Your task to perform on an android device: set the timer Image 0: 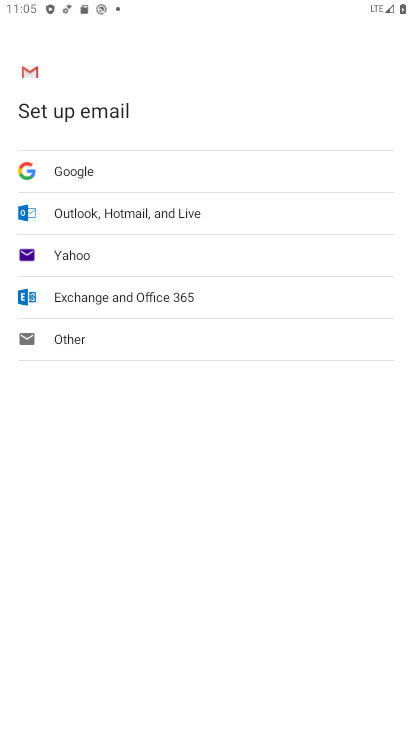
Step 0: press back button
Your task to perform on an android device: set the timer Image 1: 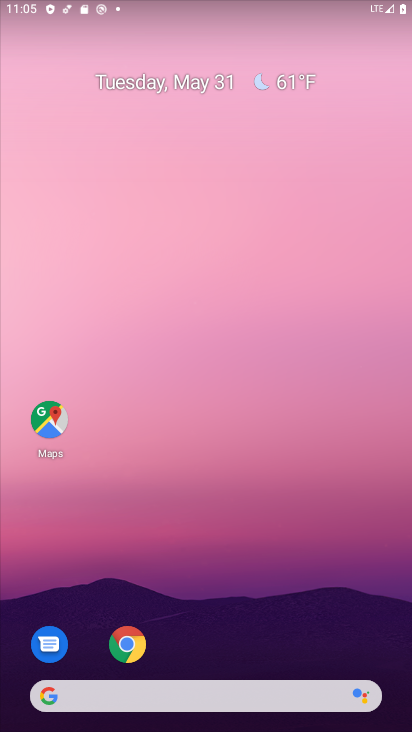
Step 1: drag from (205, 598) to (263, 52)
Your task to perform on an android device: set the timer Image 2: 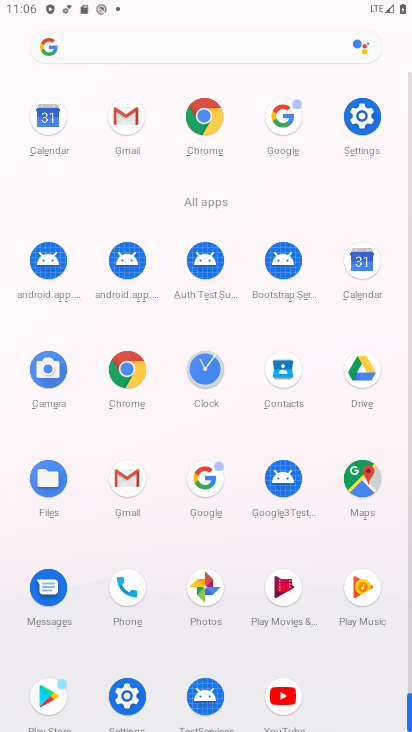
Step 2: click (202, 361)
Your task to perform on an android device: set the timer Image 3: 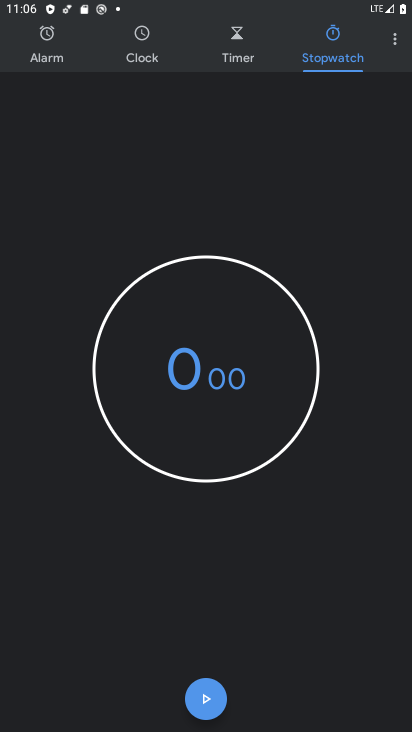
Step 3: click (242, 37)
Your task to perform on an android device: set the timer Image 4: 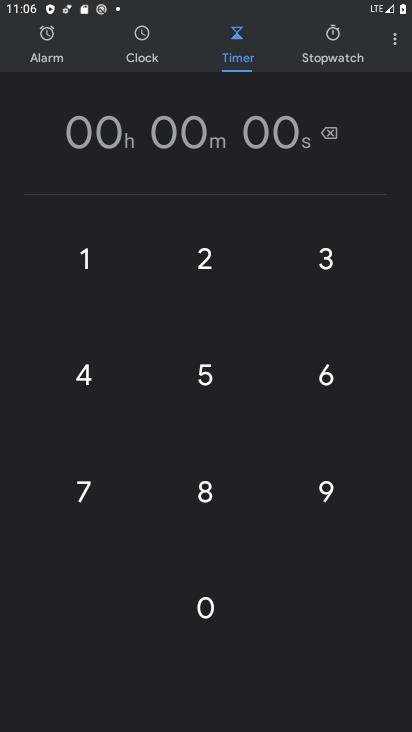
Step 4: click (197, 245)
Your task to perform on an android device: set the timer Image 5: 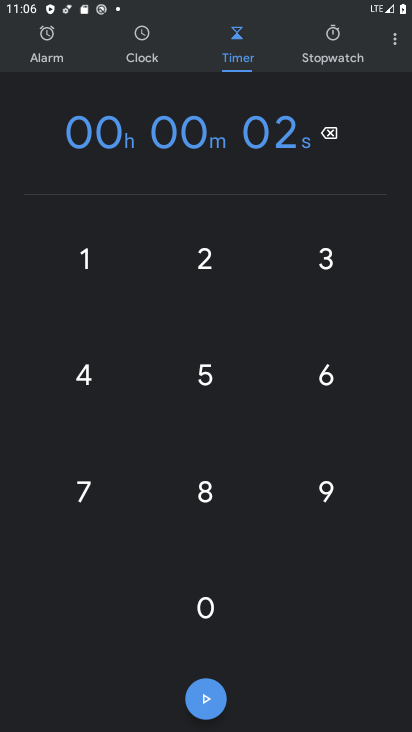
Step 5: click (336, 255)
Your task to perform on an android device: set the timer Image 6: 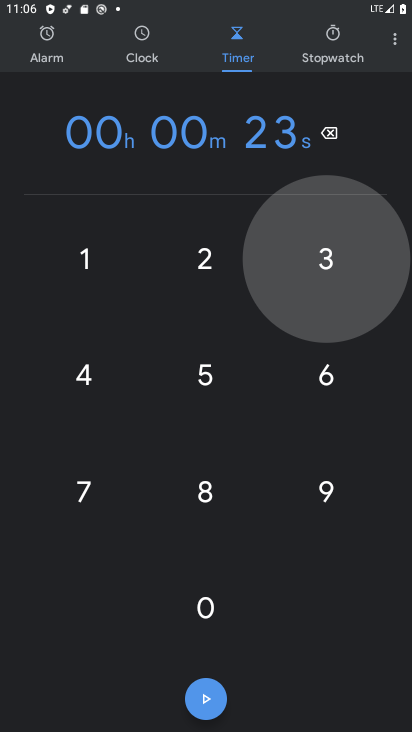
Step 6: click (198, 366)
Your task to perform on an android device: set the timer Image 7: 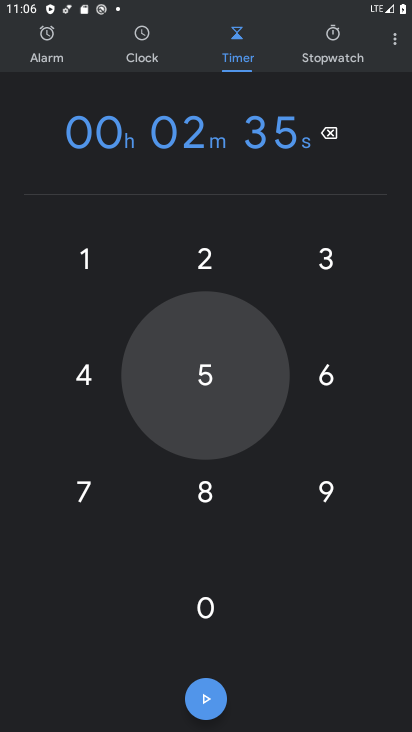
Step 7: click (331, 368)
Your task to perform on an android device: set the timer Image 8: 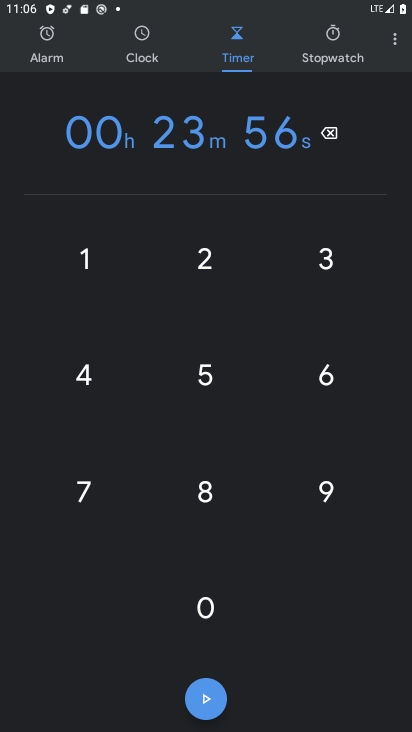
Step 8: click (193, 246)
Your task to perform on an android device: set the timer Image 9: 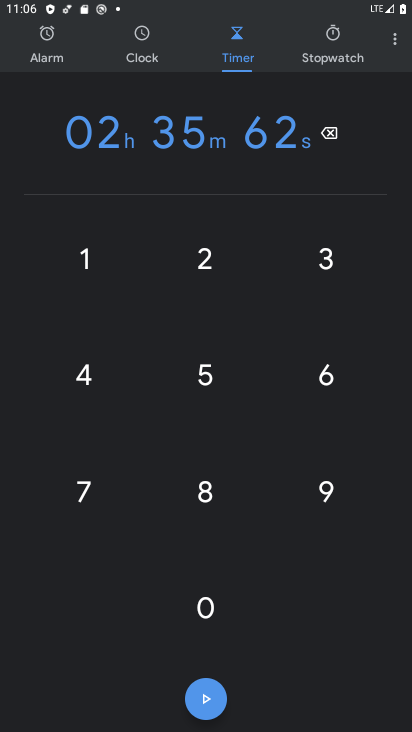
Step 9: click (204, 709)
Your task to perform on an android device: set the timer Image 10: 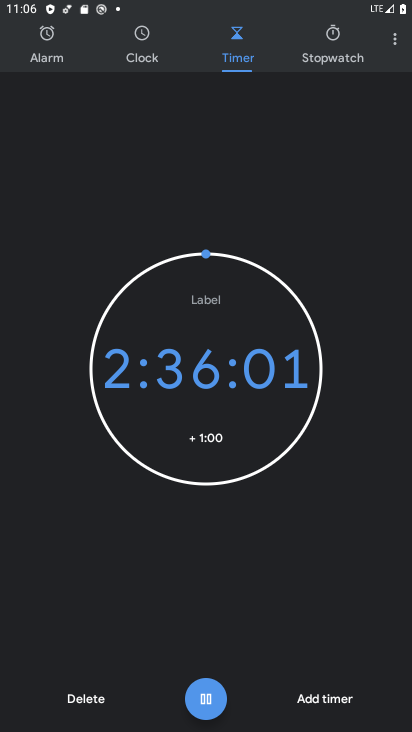
Step 10: task complete